Your task to perform on an android device: open wifi settings Image 0: 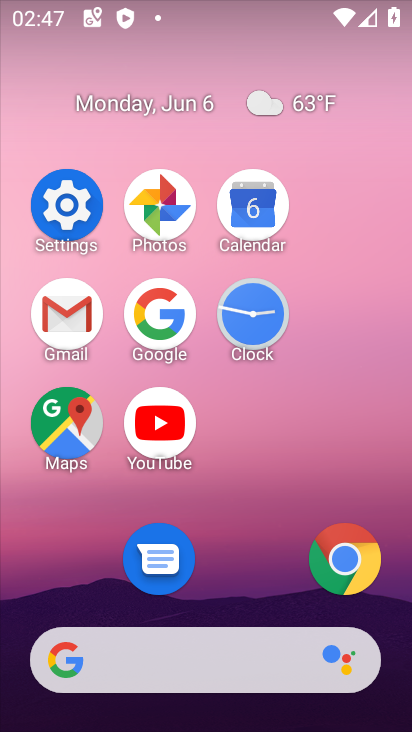
Step 0: click (56, 197)
Your task to perform on an android device: open wifi settings Image 1: 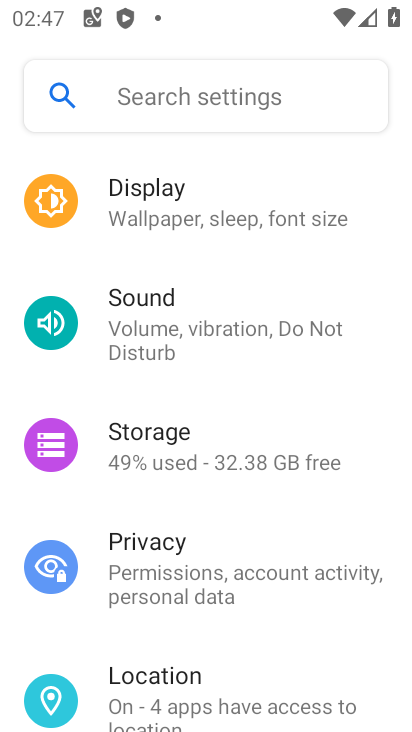
Step 1: drag from (303, 191) to (286, 574)
Your task to perform on an android device: open wifi settings Image 2: 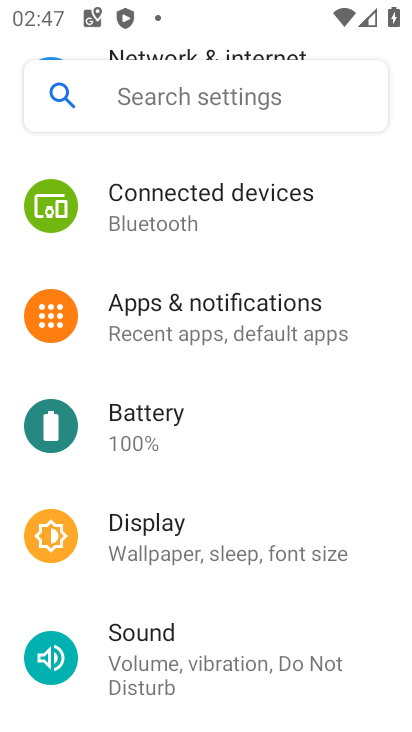
Step 2: drag from (293, 190) to (267, 484)
Your task to perform on an android device: open wifi settings Image 3: 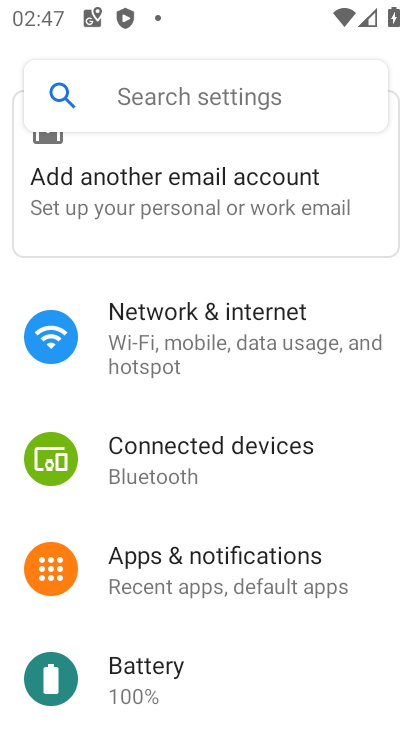
Step 3: click (259, 346)
Your task to perform on an android device: open wifi settings Image 4: 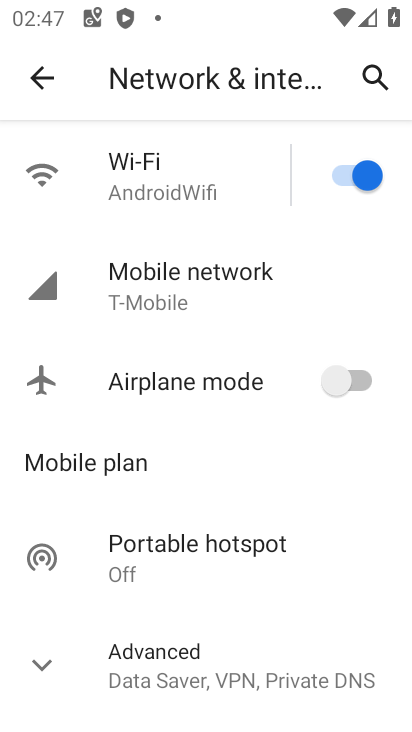
Step 4: click (230, 189)
Your task to perform on an android device: open wifi settings Image 5: 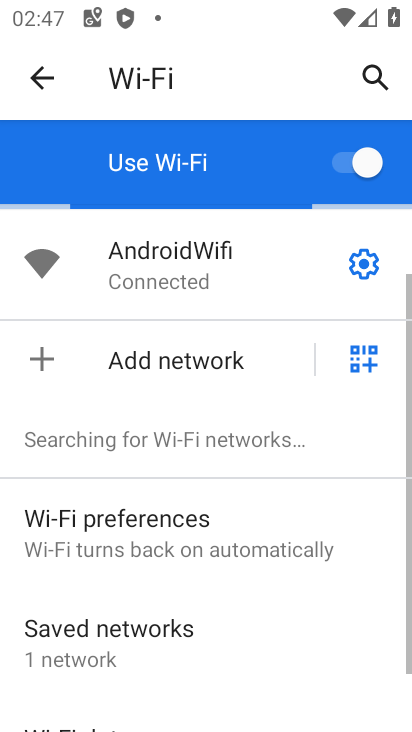
Step 5: click (368, 250)
Your task to perform on an android device: open wifi settings Image 6: 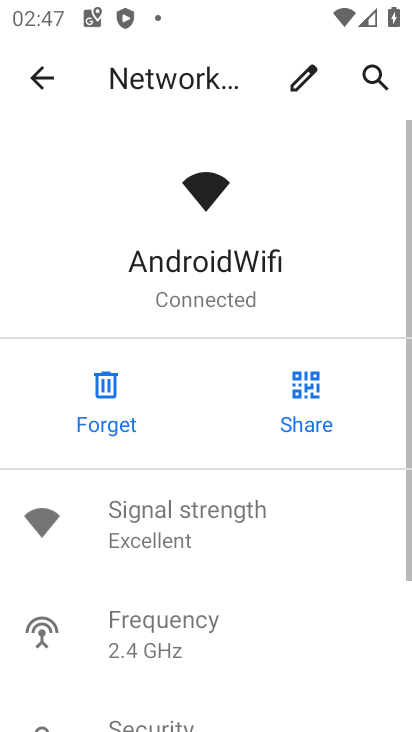
Step 6: task complete